Your task to perform on an android device: Open Chrome and go to settings Image 0: 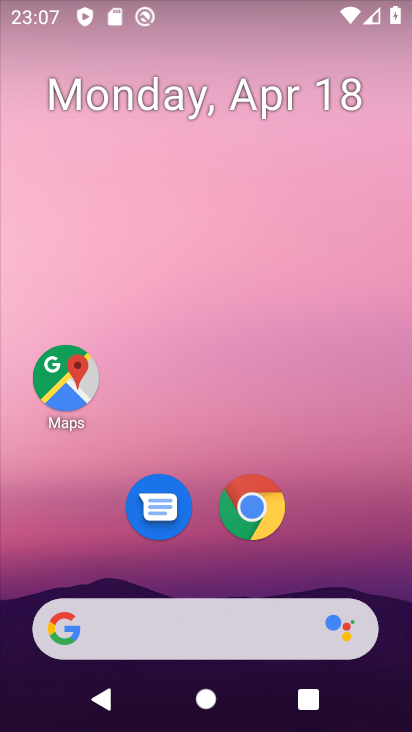
Step 0: click (264, 503)
Your task to perform on an android device: Open Chrome and go to settings Image 1: 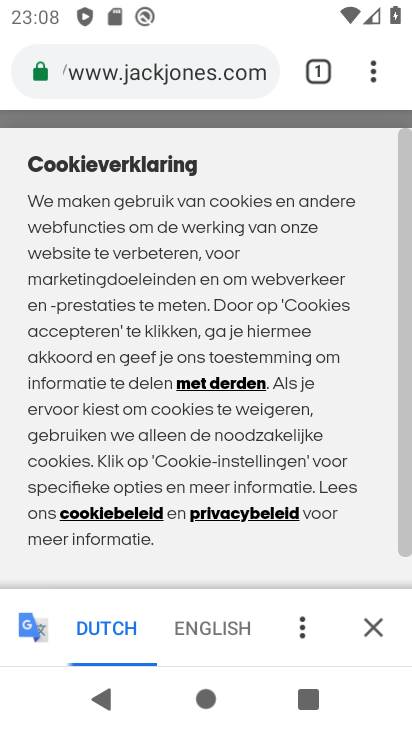
Step 1: click (370, 72)
Your task to perform on an android device: Open Chrome and go to settings Image 2: 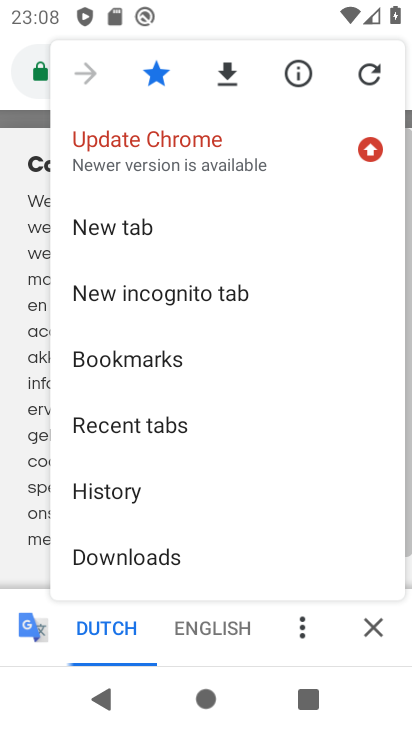
Step 2: drag from (286, 462) to (315, 206)
Your task to perform on an android device: Open Chrome and go to settings Image 3: 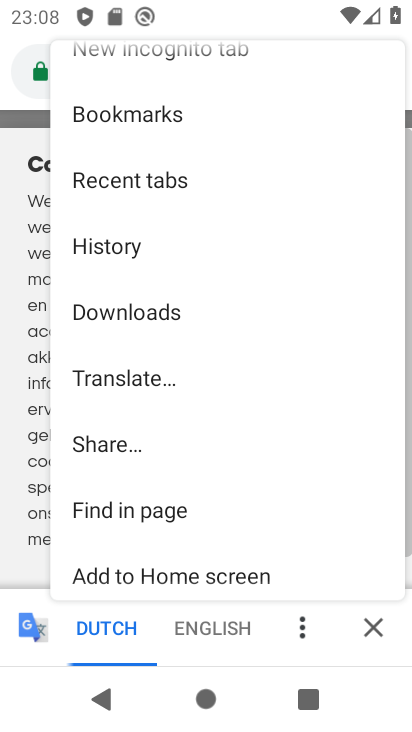
Step 3: drag from (280, 424) to (287, 169)
Your task to perform on an android device: Open Chrome and go to settings Image 4: 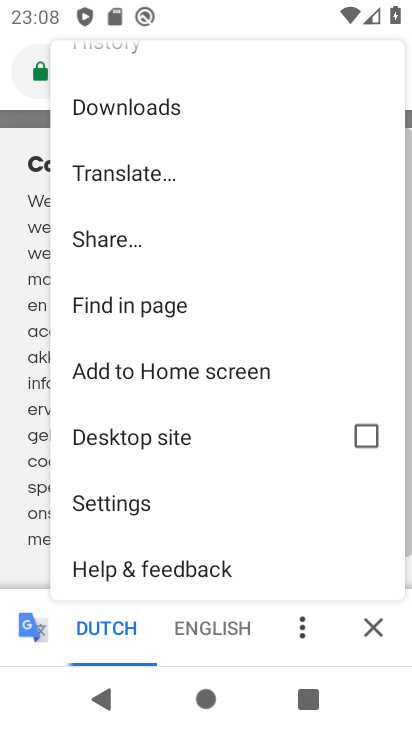
Step 4: click (183, 503)
Your task to perform on an android device: Open Chrome and go to settings Image 5: 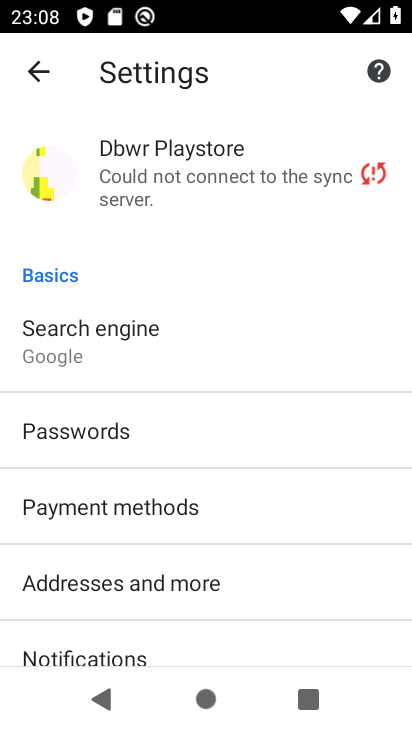
Step 5: task complete